Your task to perform on an android device: What's on my calendar today? Image 0: 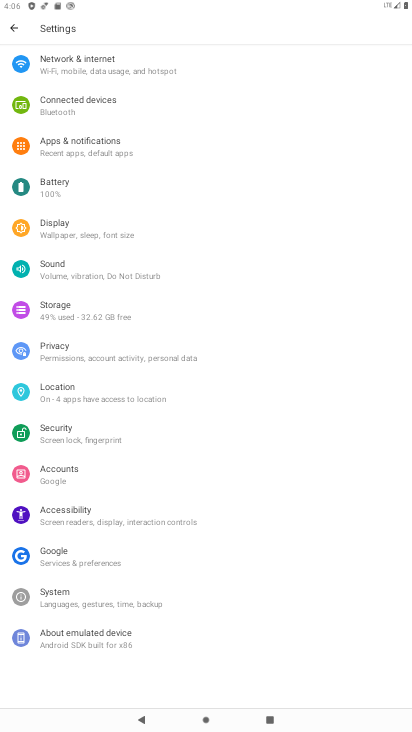
Step 0: click (309, 123)
Your task to perform on an android device: What's on my calendar today? Image 1: 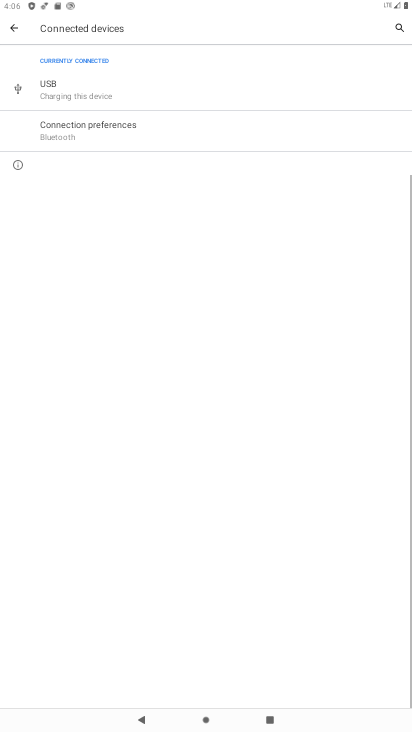
Step 1: press back button
Your task to perform on an android device: What's on my calendar today? Image 2: 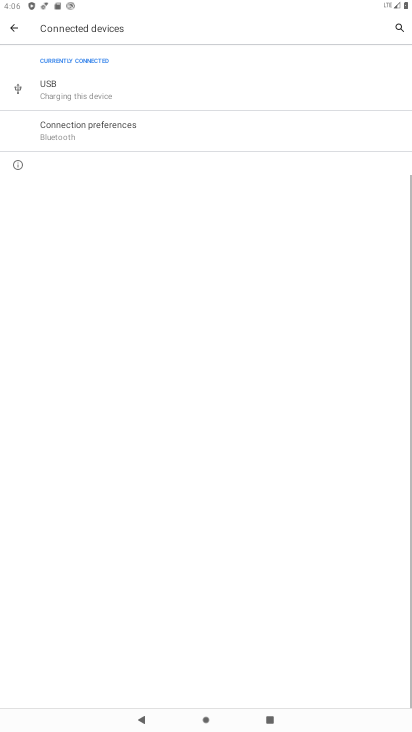
Step 2: press back button
Your task to perform on an android device: What's on my calendar today? Image 3: 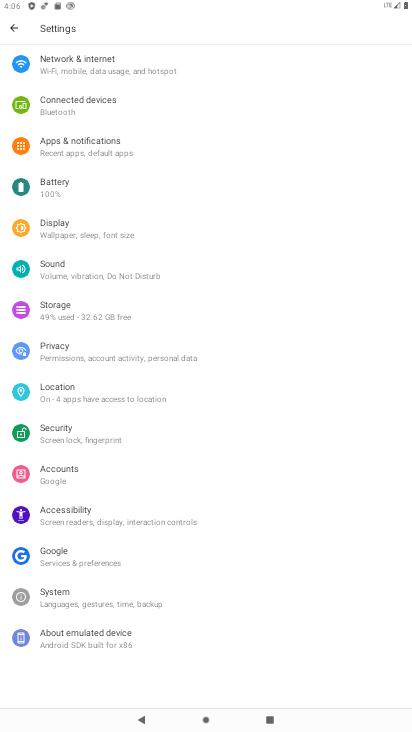
Step 3: press back button
Your task to perform on an android device: What's on my calendar today? Image 4: 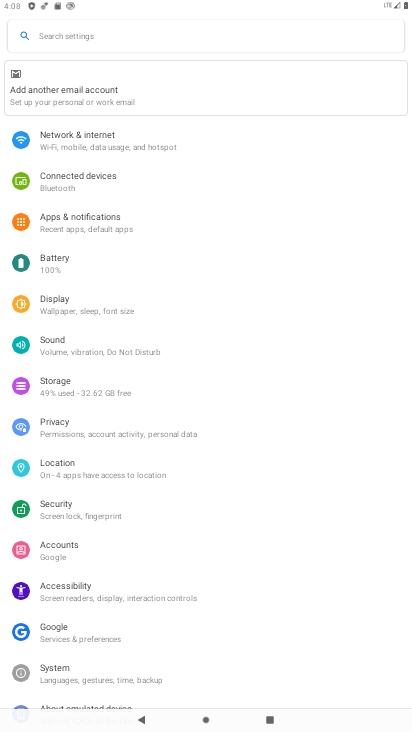
Step 4: press back button
Your task to perform on an android device: What's on my calendar today? Image 5: 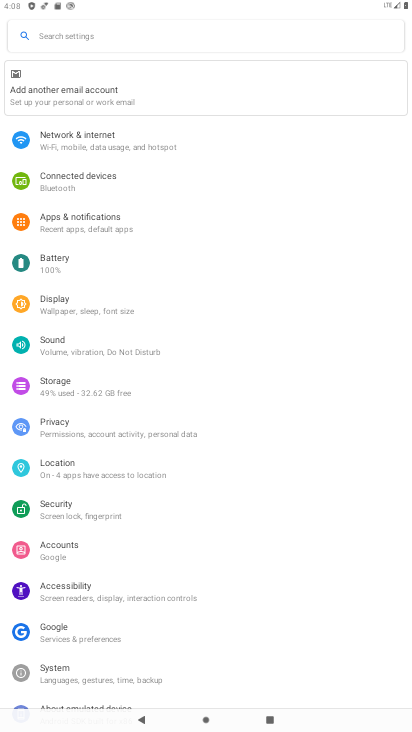
Step 5: press back button
Your task to perform on an android device: What's on my calendar today? Image 6: 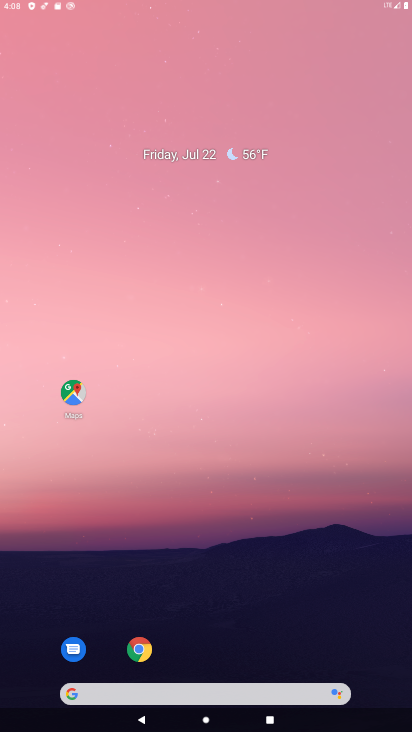
Step 6: press back button
Your task to perform on an android device: What's on my calendar today? Image 7: 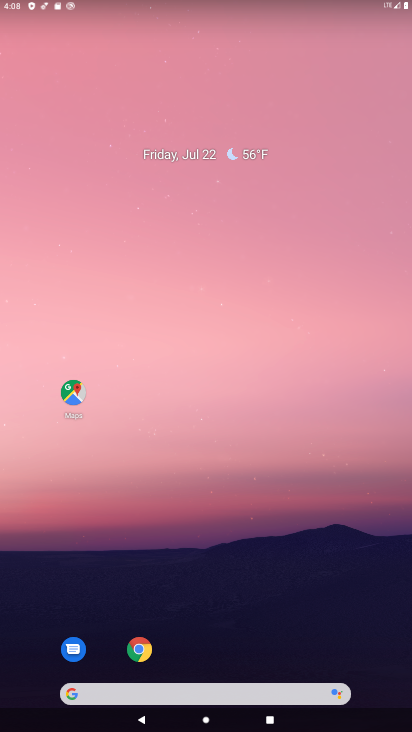
Step 7: drag from (277, 673) to (167, 68)
Your task to perform on an android device: What's on my calendar today? Image 8: 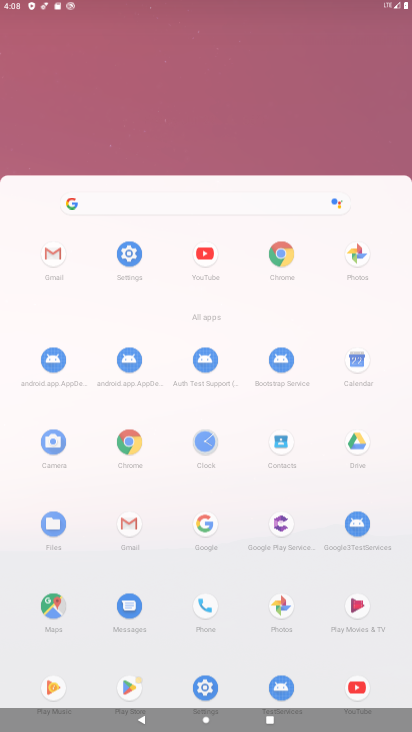
Step 8: drag from (161, 422) to (142, 59)
Your task to perform on an android device: What's on my calendar today? Image 9: 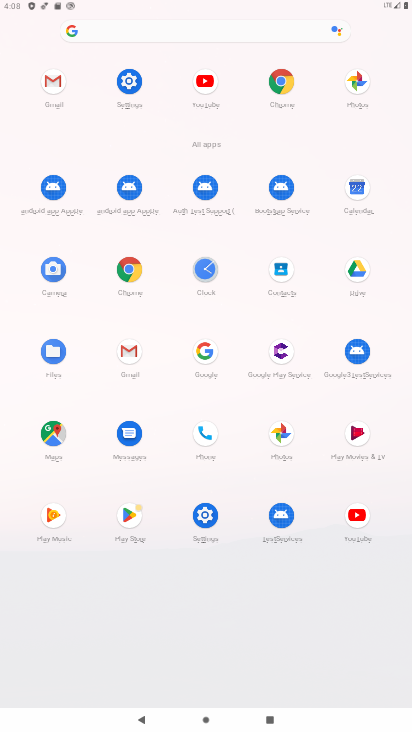
Step 9: drag from (242, 501) to (242, 194)
Your task to perform on an android device: What's on my calendar today? Image 10: 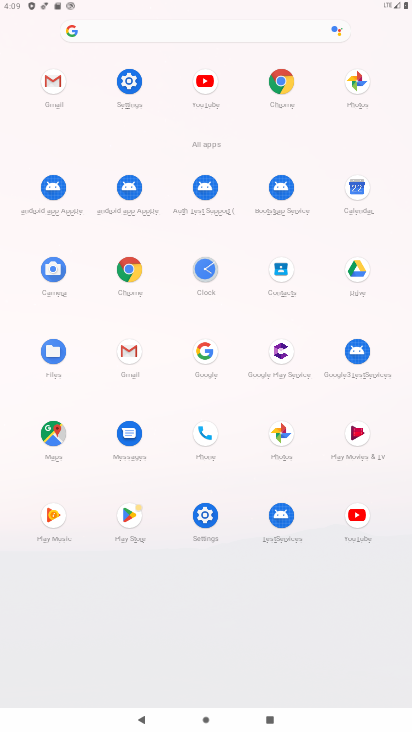
Step 10: click (199, 515)
Your task to perform on an android device: What's on my calendar today? Image 11: 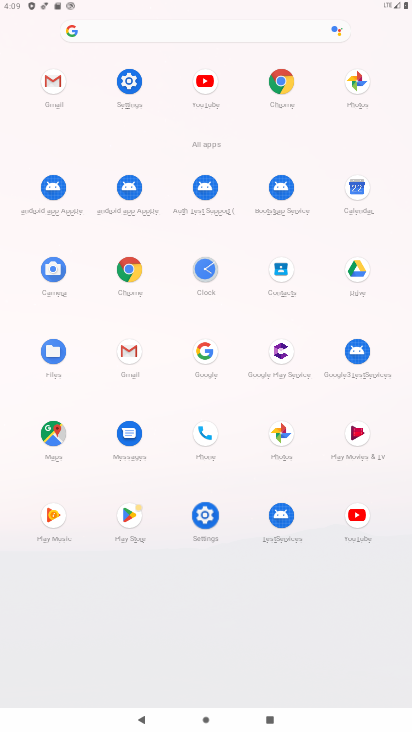
Step 11: click (199, 515)
Your task to perform on an android device: What's on my calendar today? Image 12: 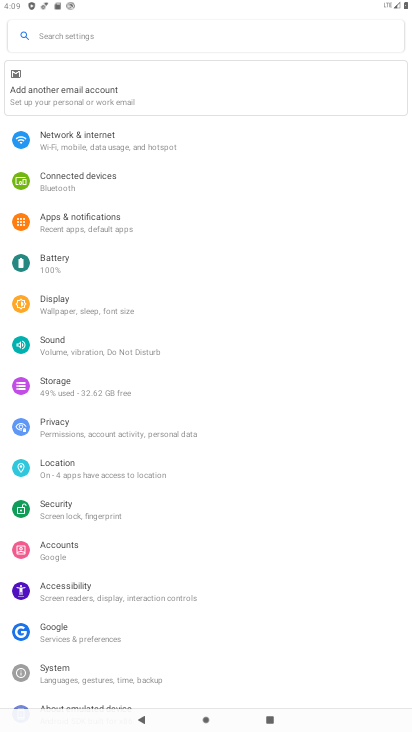
Step 12: drag from (74, 541) to (74, 167)
Your task to perform on an android device: What's on my calendar today? Image 13: 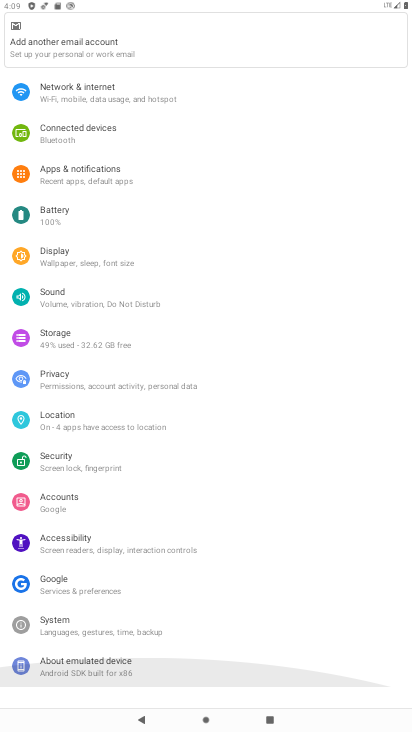
Step 13: click (87, 136)
Your task to perform on an android device: What's on my calendar today? Image 14: 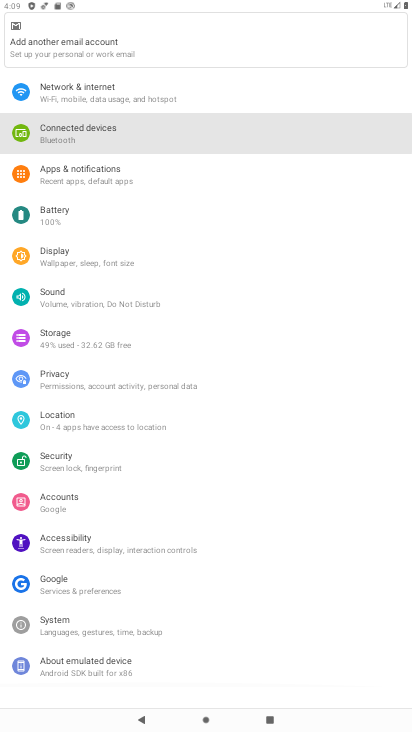
Step 14: drag from (71, 323) to (77, 188)
Your task to perform on an android device: What's on my calendar today? Image 15: 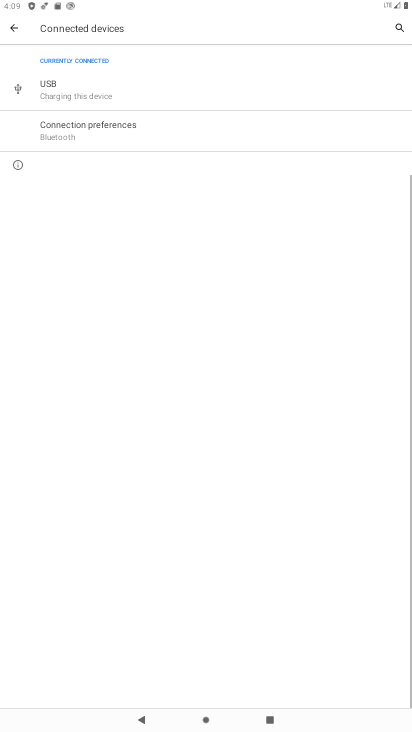
Step 15: click (117, 148)
Your task to perform on an android device: What's on my calendar today? Image 16: 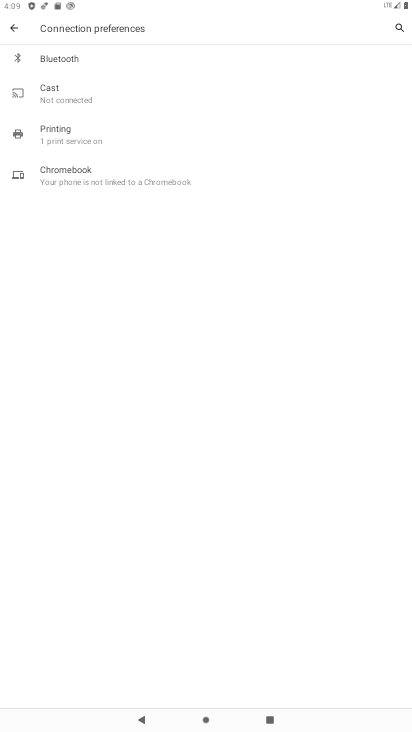
Step 16: click (17, 30)
Your task to perform on an android device: What's on my calendar today? Image 17: 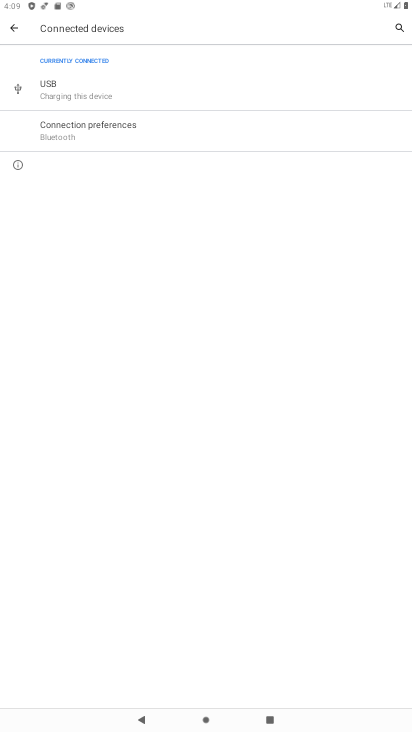
Step 17: click (19, 19)
Your task to perform on an android device: What's on my calendar today? Image 18: 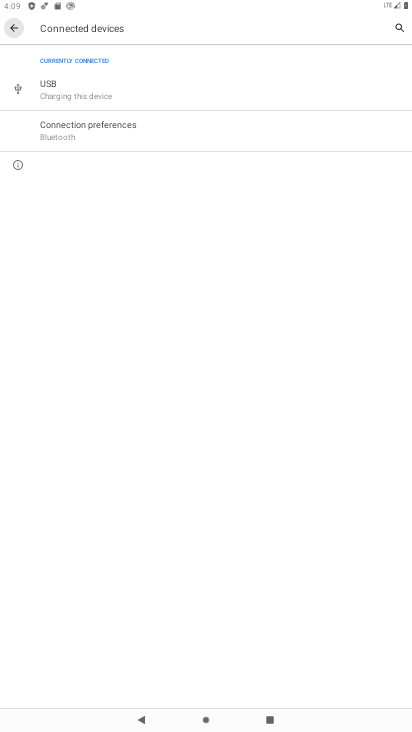
Step 18: click (16, 40)
Your task to perform on an android device: What's on my calendar today? Image 19: 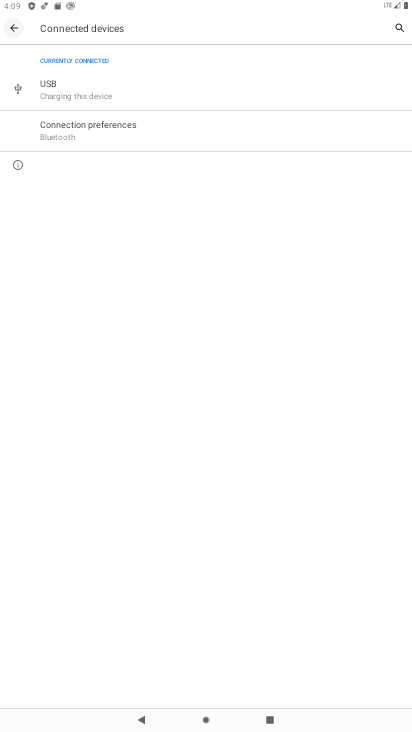
Step 19: click (20, 37)
Your task to perform on an android device: What's on my calendar today? Image 20: 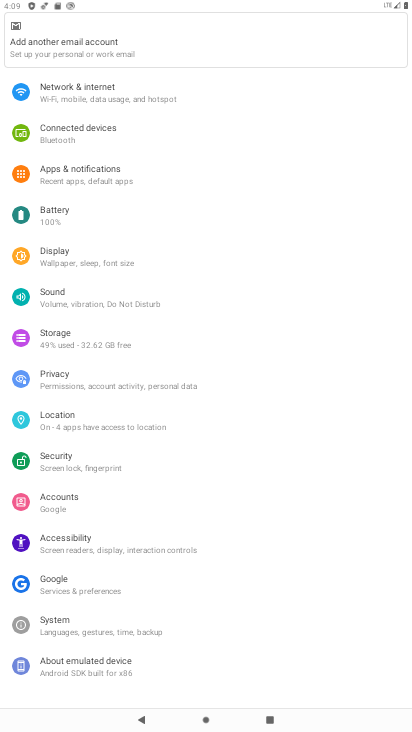
Step 20: drag from (86, 435) to (72, 79)
Your task to perform on an android device: What's on my calendar today? Image 21: 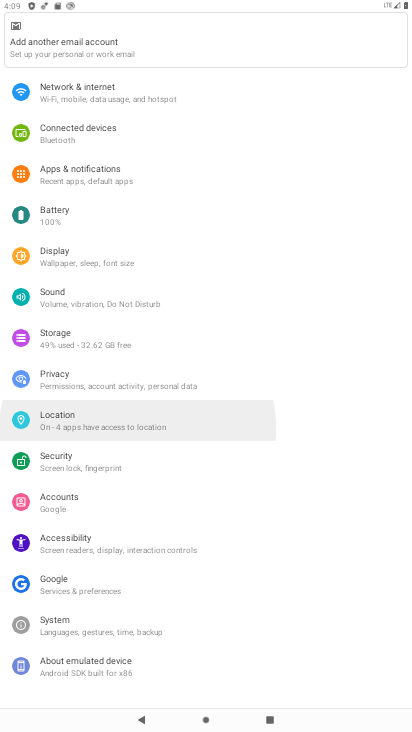
Step 21: drag from (153, 392) to (117, 119)
Your task to perform on an android device: What's on my calendar today? Image 22: 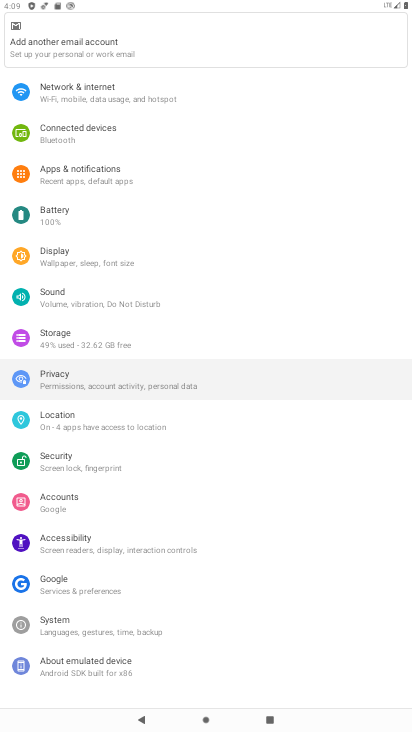
Step 22: click (63, 39)
Your task to perform on an android device: What's on my calendar today? Image 23: 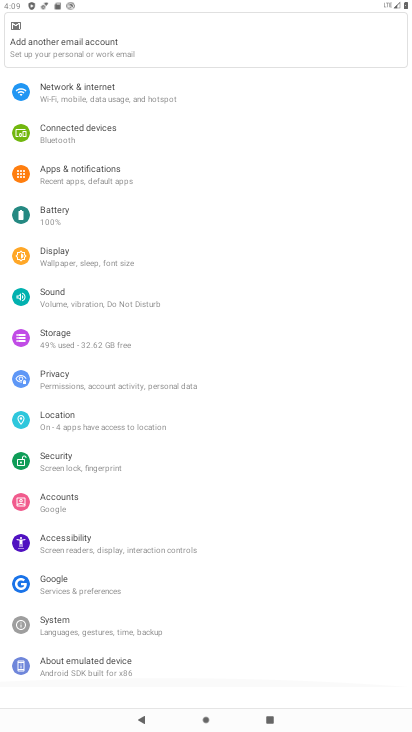
Step 23: drag from (128, 395) to (110, 119)
Your task to perform on an android device: What's on my calendar today? Image 24: 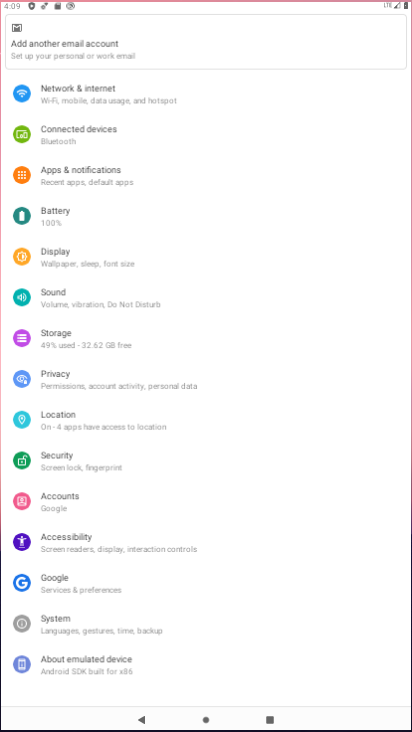
Step 24: drag from (96, 211) to (96, 57)
Your task to perform on an android device: What's on my calendar today? Image 25: 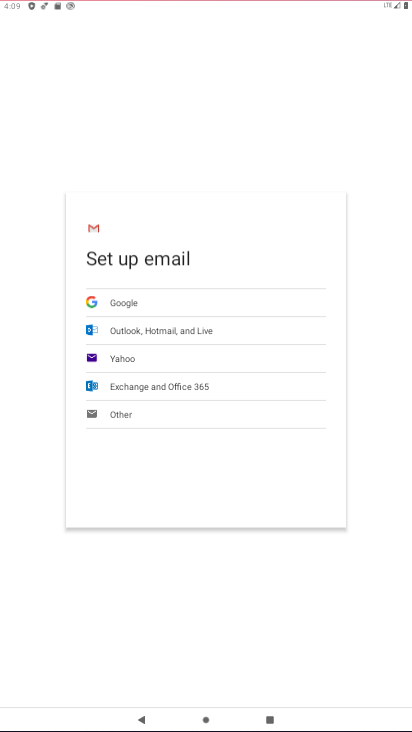
Step 25: drag from (114, 280) to (122, 81)
Your task to perform on an android device: What's on my calendar today? Image 26: 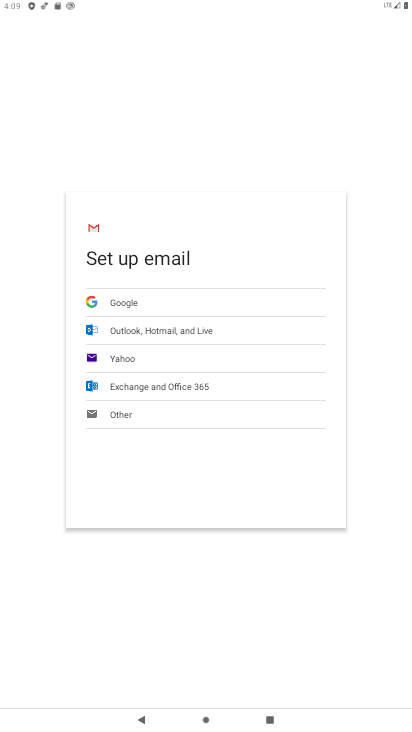
Step 26: click (185, 86)
Your task to perform on an android device: What's on my calendar today? Image 27: 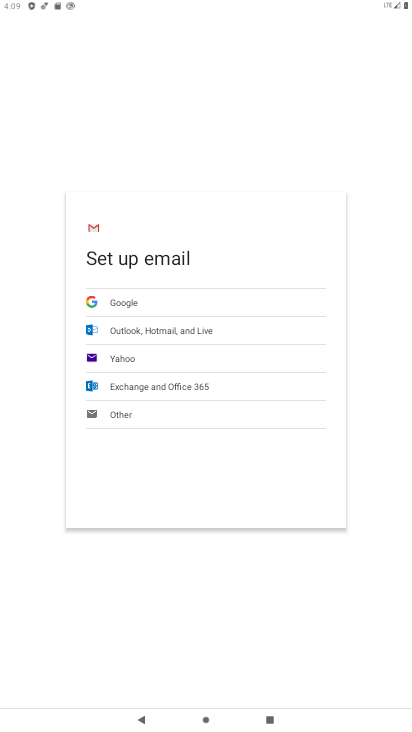
Step 27: click (185, 86)
Your task to perform on an android device: What's on my calendar today? Image 28: 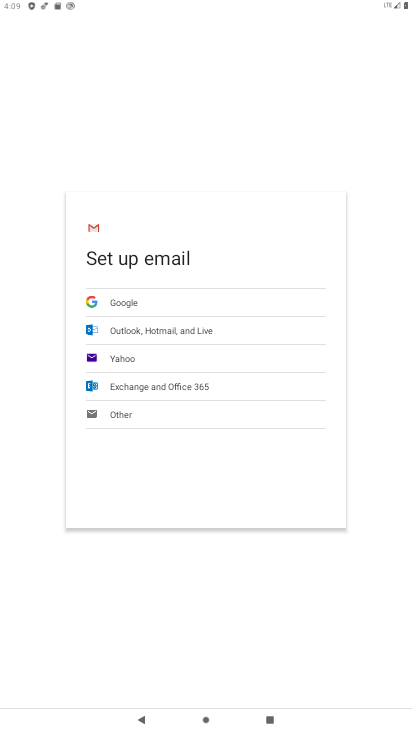
Step 28: click (60, 93)
Your task to perform on an android device: What's on my calendar today? Image 29: 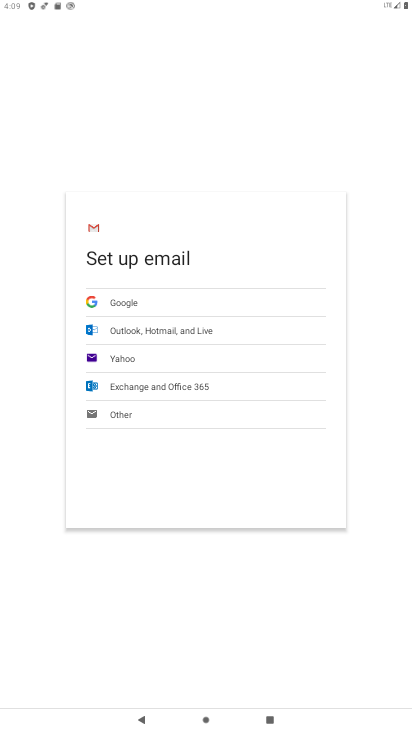
Step 29: click (66, 89)
Your task to perform on an android device: What's on my calendar today? Image 30: 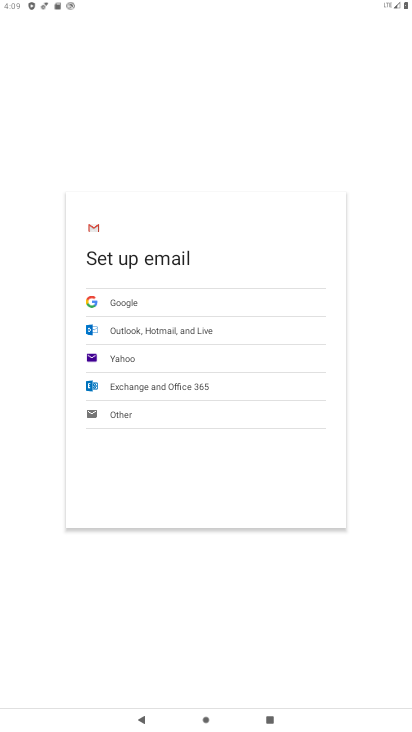
Step 30: click (49, 151)
Your task to perform on an android device: What's on my calendar today? Image 31: 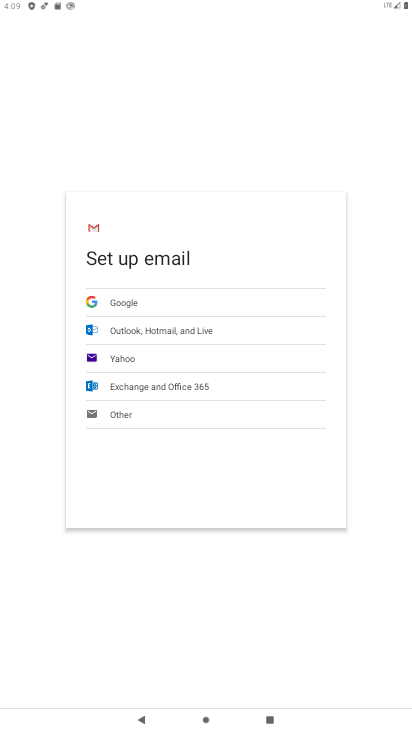
Step 31: click (56, 145)
Your task to perform on an android device: What's on my calendar today? Image 32: 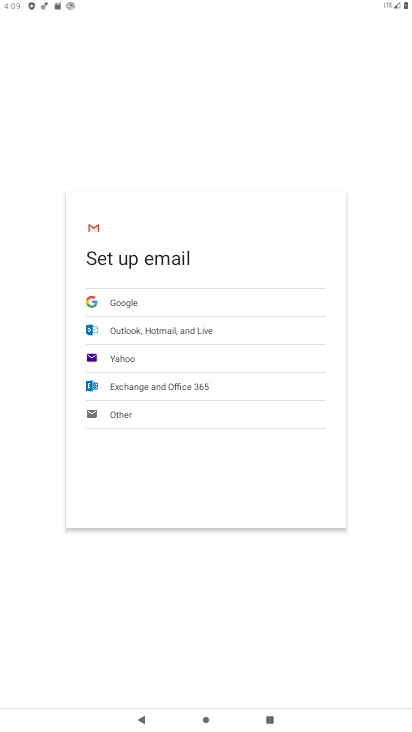
Step 32: click (60, 143)
Your task to perform on an android device: What's on my calendar today? Image 33: 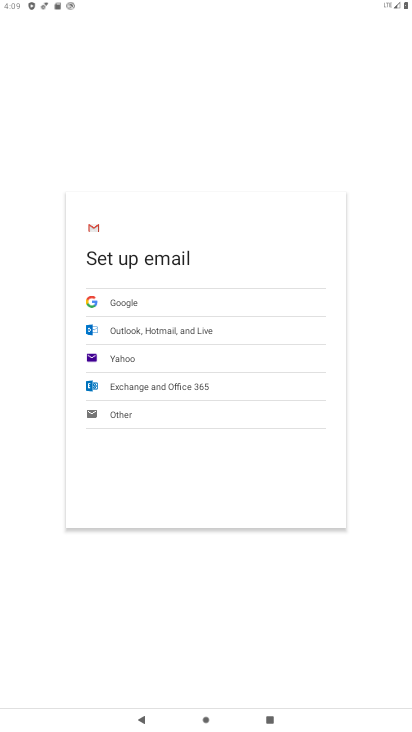
Step 33: press back button
Your task to perform on an android device: What's on my calendar today? Image 34: 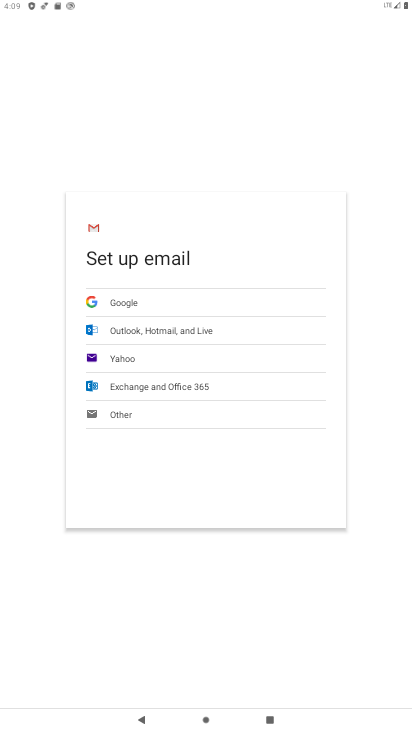
Step 34: press back button
Your task to perform on an android device: What's on my calendar today? Image 35: 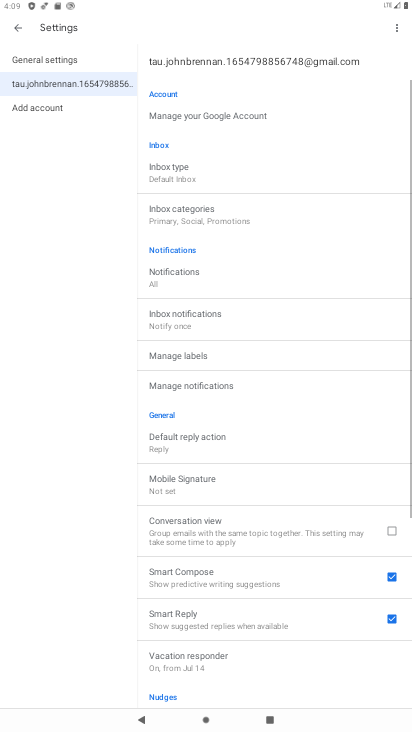
Step 35: press back button
Your task to perform on an android device: What's on my calendar today? Image 36: 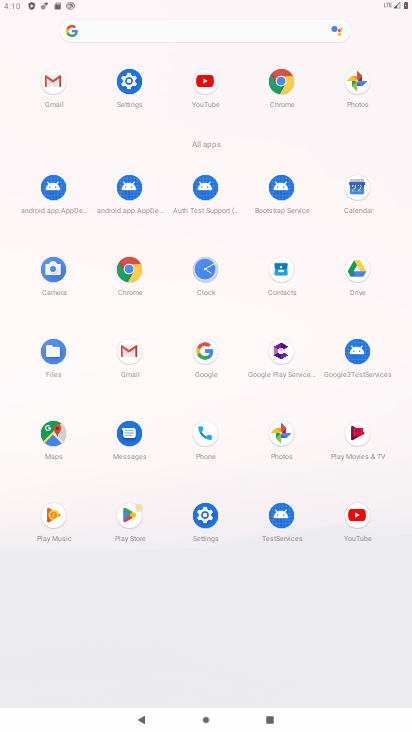
Step 36: click (360, 196)
Your task to perform on an android device: What's on my calendar today? Image 37: 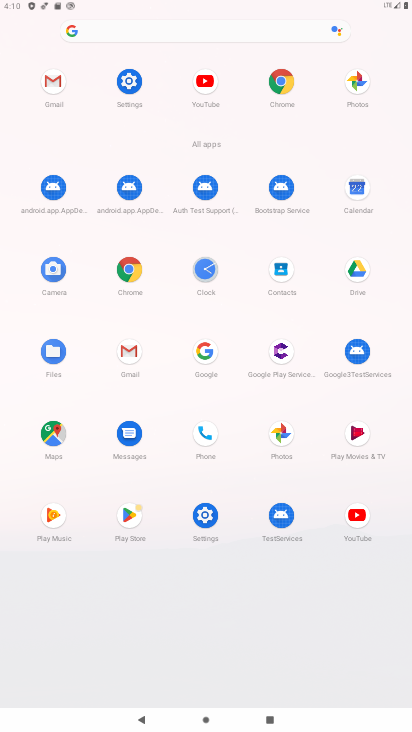
Step 37: click (360, 195)
Your task to perform on an android device: What's on my calendar today? Image 38: 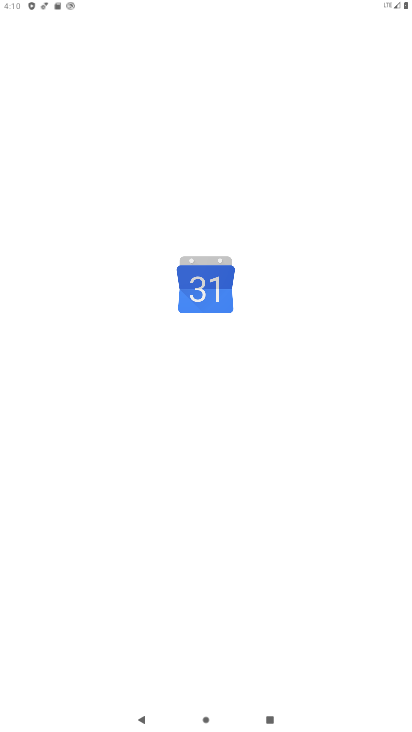
Step 38: click (360, 190)
Your task to perform on an android device: What's on my calendar today? Image 39: 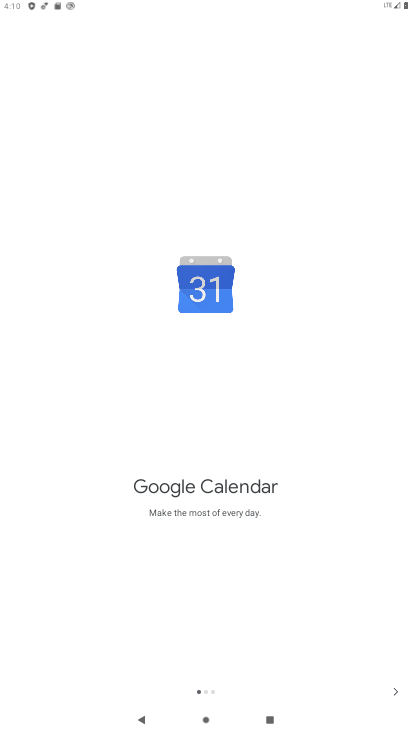
Step 39: click (397, 688)
Your task to perform on an android device: What's on my calendar today? Image 40: 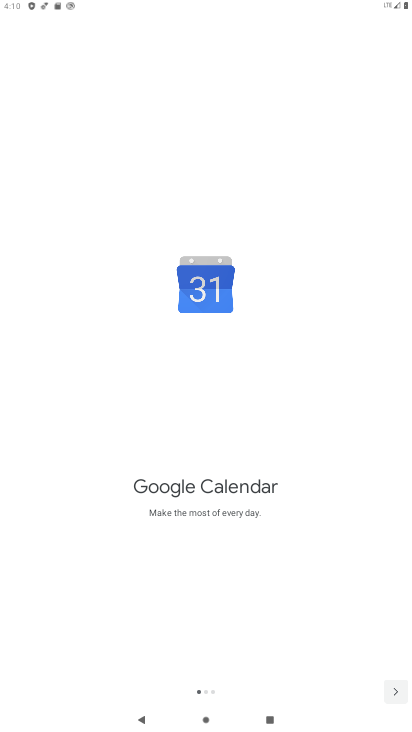
Step 40: click (397, 688)
Your task to perform on an android device: What's on my calendar today? Image 41: 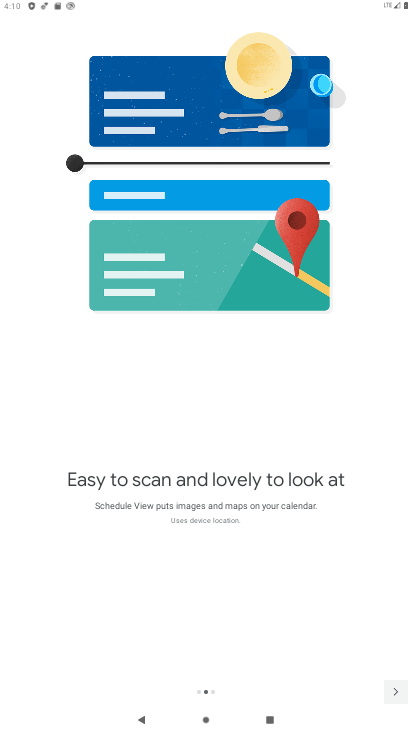
Step 41: click (396, 689)
Your task to perform on an android device: What's on my calendar today? Image 42: 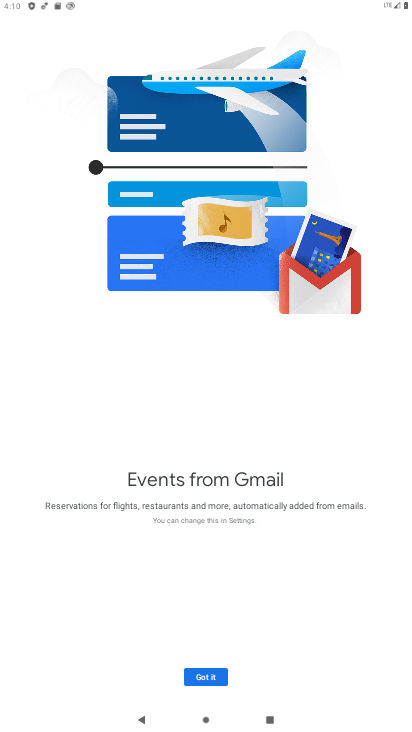
Step 42: click (397, 692)
Your task to perform on an android device: What's on my calendar today? Image 43: 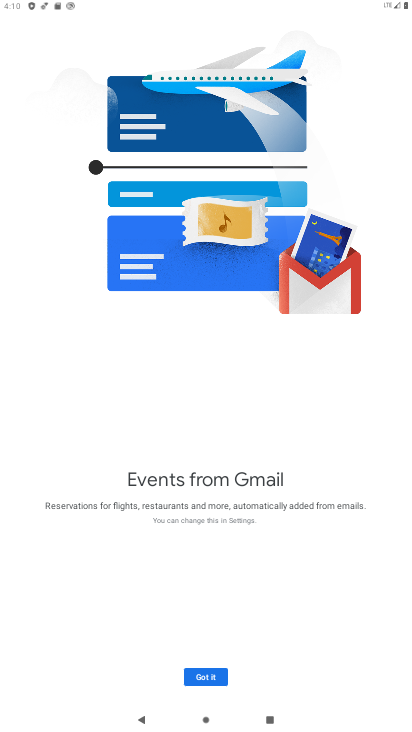
Step 43: click (399, 690)
Your task to perform on an android device: What's on my calendar today? Image 44: 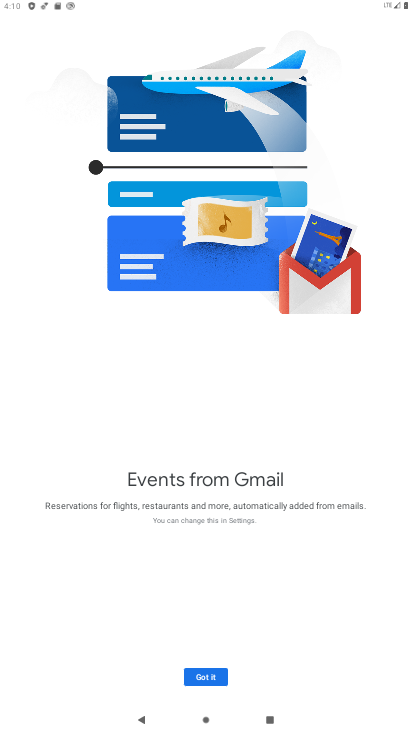
Step 44: click (400, 684)
Your task to perform on an android device: What's on my calendar today? Image 45: 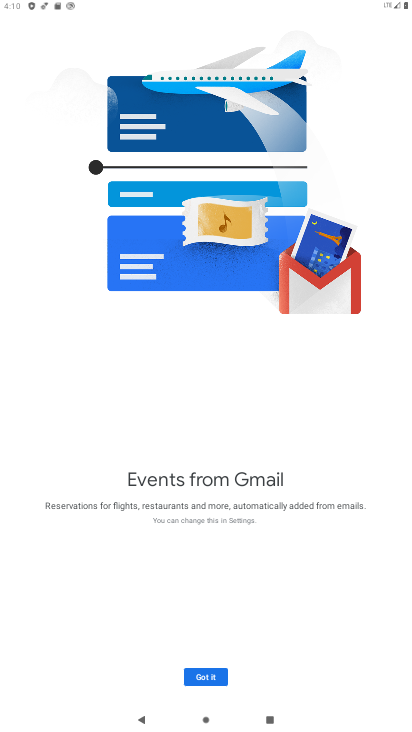
Step 45: click (209, 668)
Your task to perform on an android device: What's on my calendar today? Image 46: 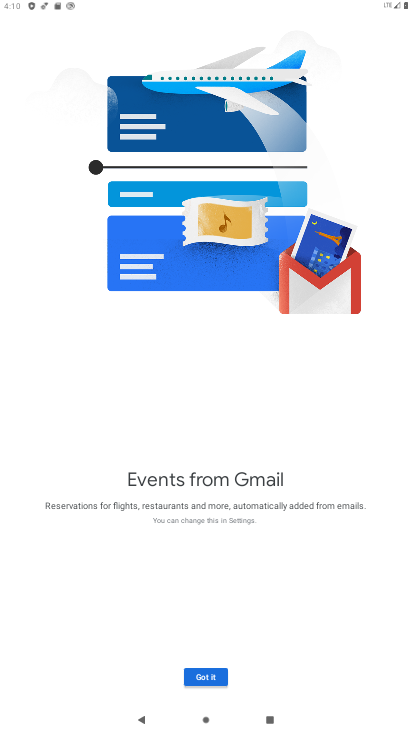
Step 46: click (208, 669)
Your task to perform on an android device: What's on my calendar today? Image 47: 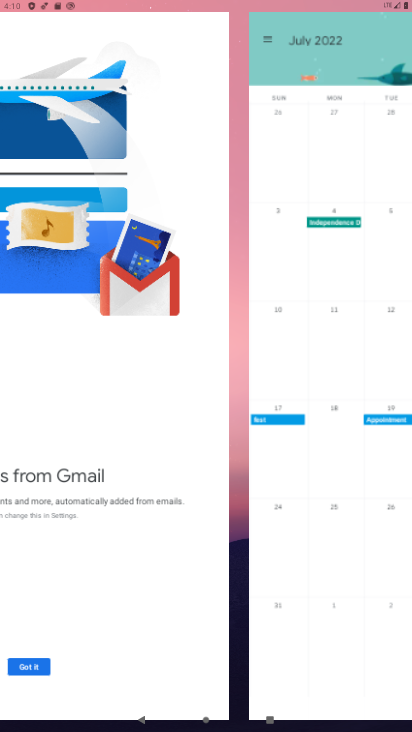
Step 47: click (208, 669)
Your task to perform on an android device: What's on my calendar today? Image 48: 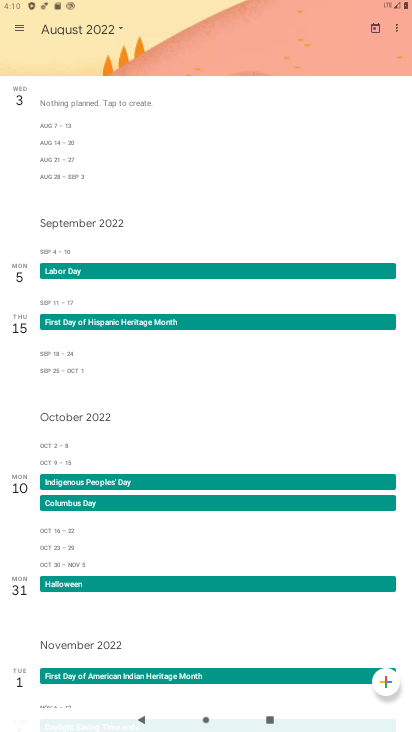
Step 48: task complete